Your task to perform on an android device: Add macbook pro 15 inch to the cart on target Image 0: 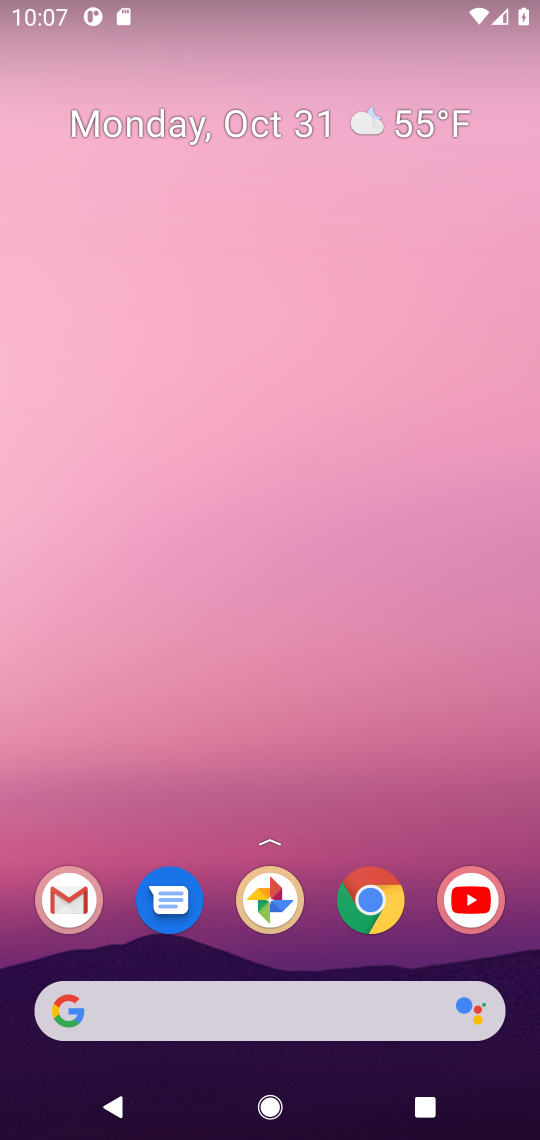
Step 0: click (382, 913)
Your task to perform on an android device: Add macbook pro 15 inch to the cart on target Image 1: 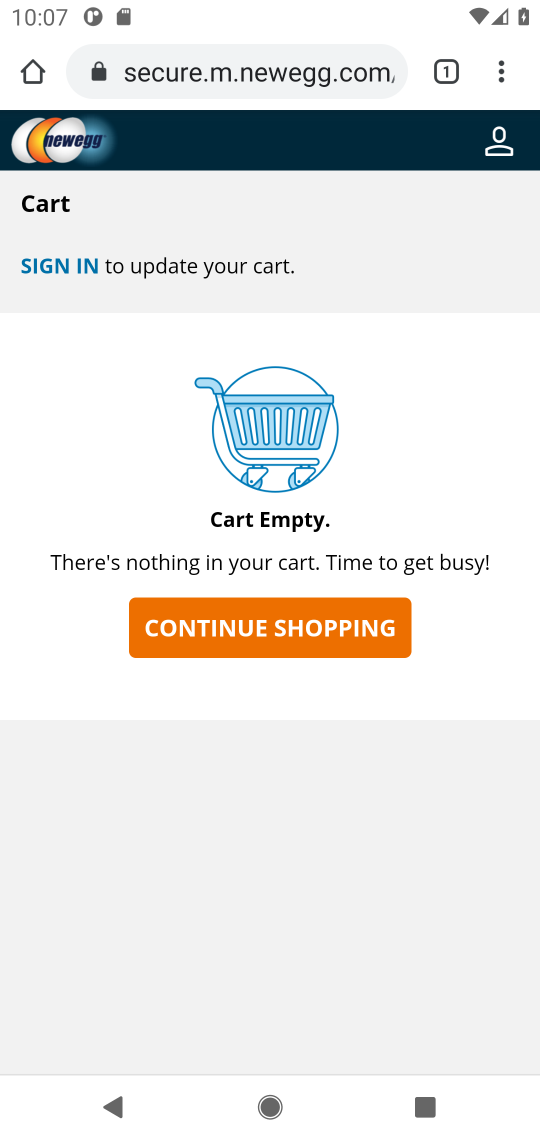
Step 1: click (218, 84)
Your task to perform on an android device: Add macbook pro 15 inch to the cart on target Image 2: 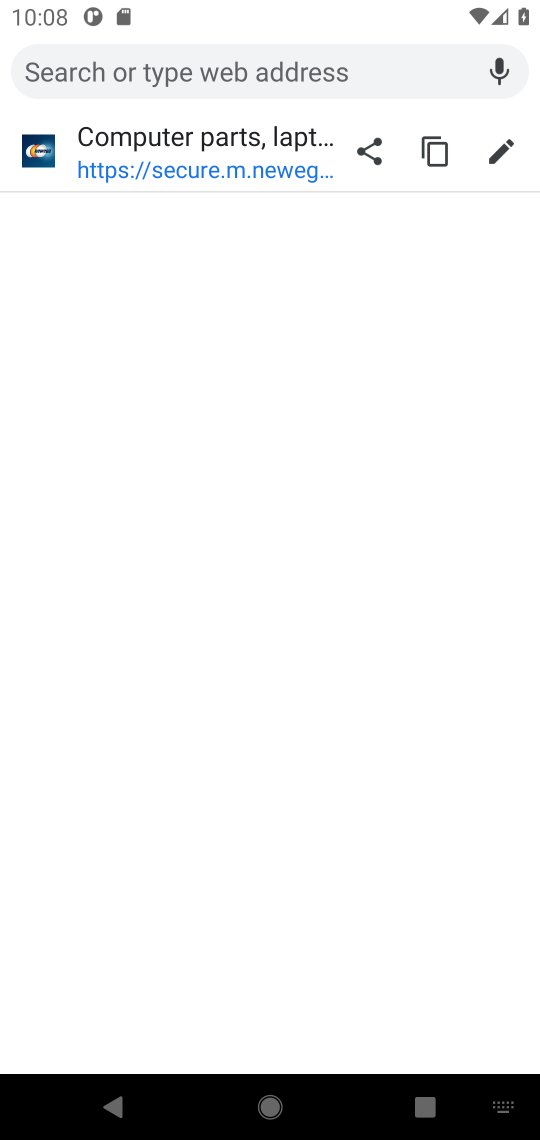
Step 2: type "target"
Your task to perform on an android device: Add macbook pro 15 inch to the cart on target Image 3: 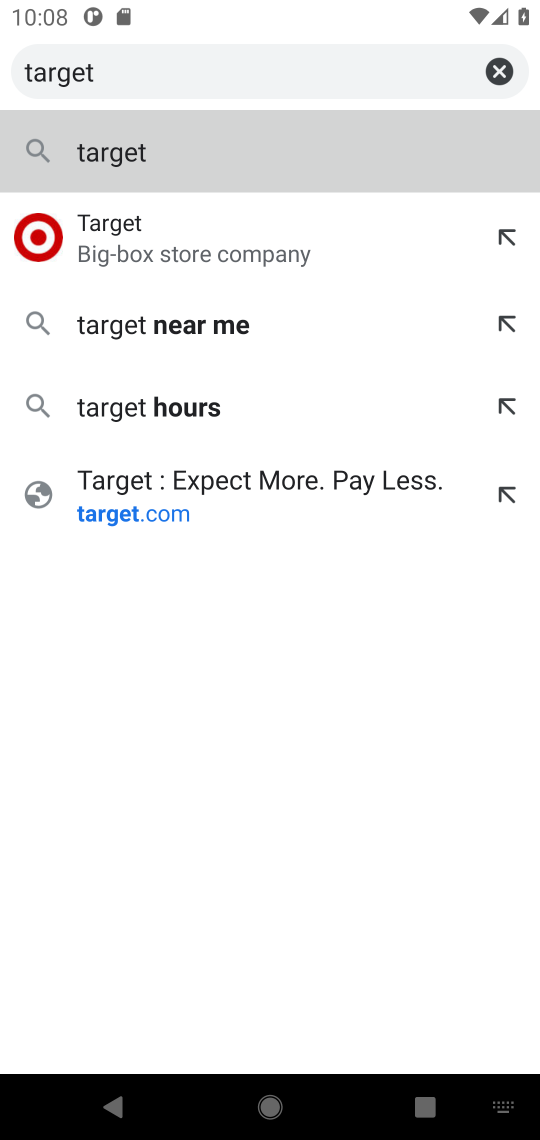
Step 3: type ".com"
Your task to perform on an android device: Add macbook pro 15 inch to the cart on target Image 4: 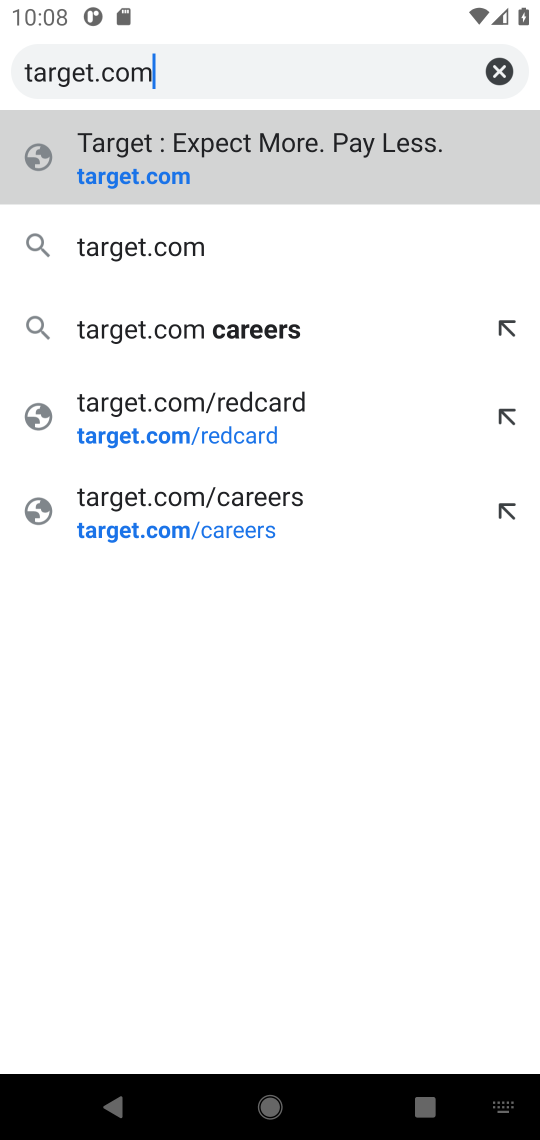
Step 4: click (163, 174)
Your task to perform on an android device: Add macbook pro 15 inch to the cart on target Image 5: 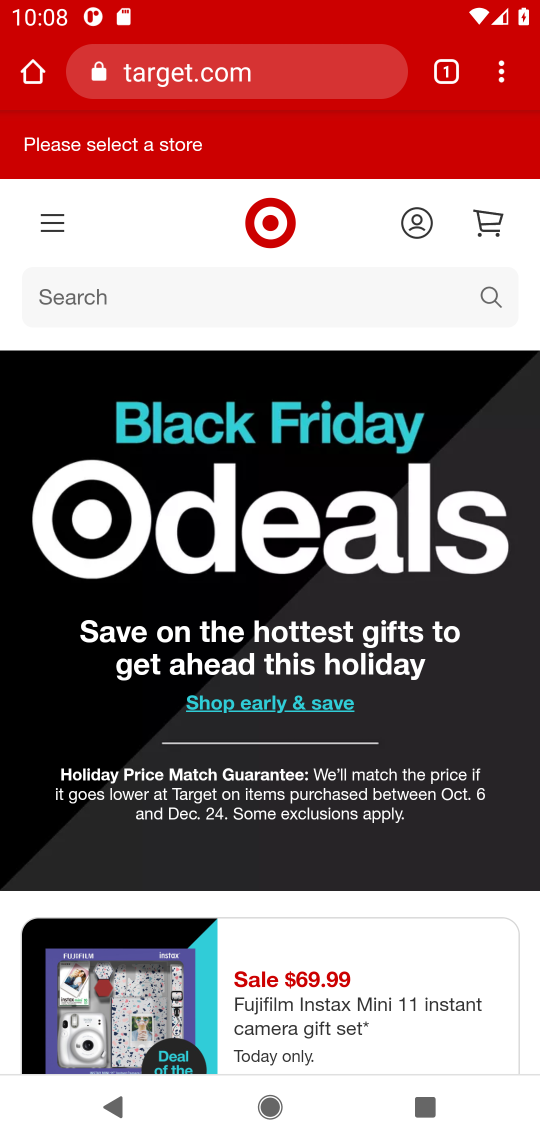
Step 5: click (482, 304)
Your task to perform on an android device: Add macbook pro 15 inch to the cart on target Image 6: 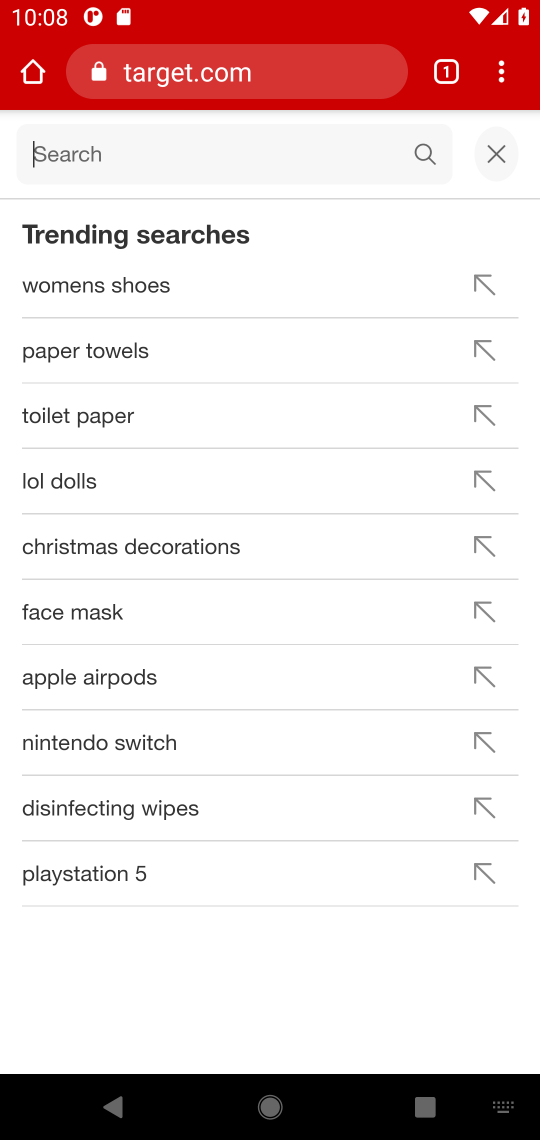
Step 6: type "macbook pro 15 inch"
Your task to perform on an android device: Add macbook pro 15 inch to the cart on target Image 7: 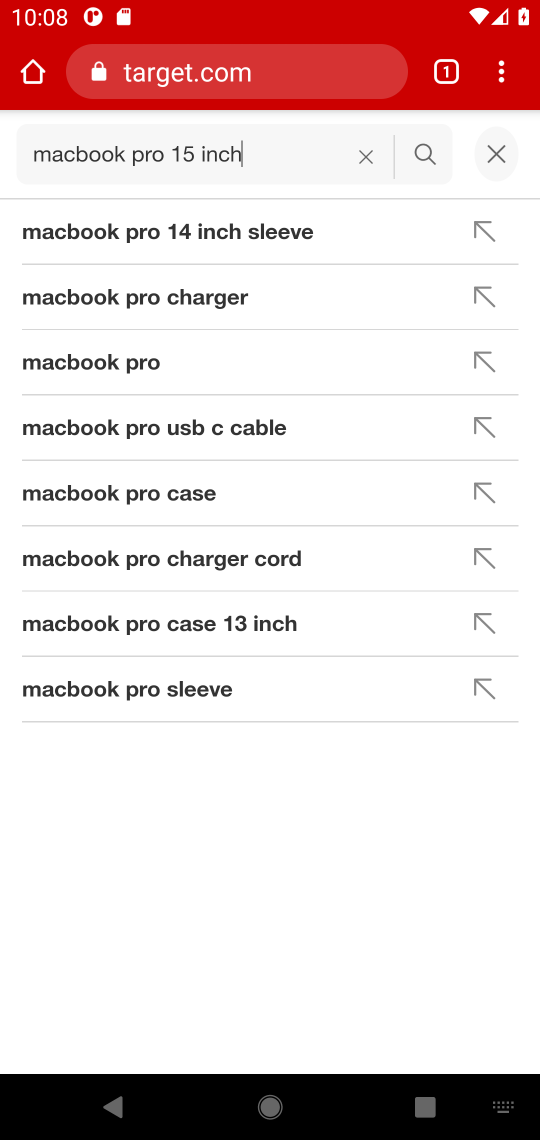
Step 7: click (242, 158)
Your task to perform on an android device: Add macbook pro 15 inch to the cart on target Image 8: 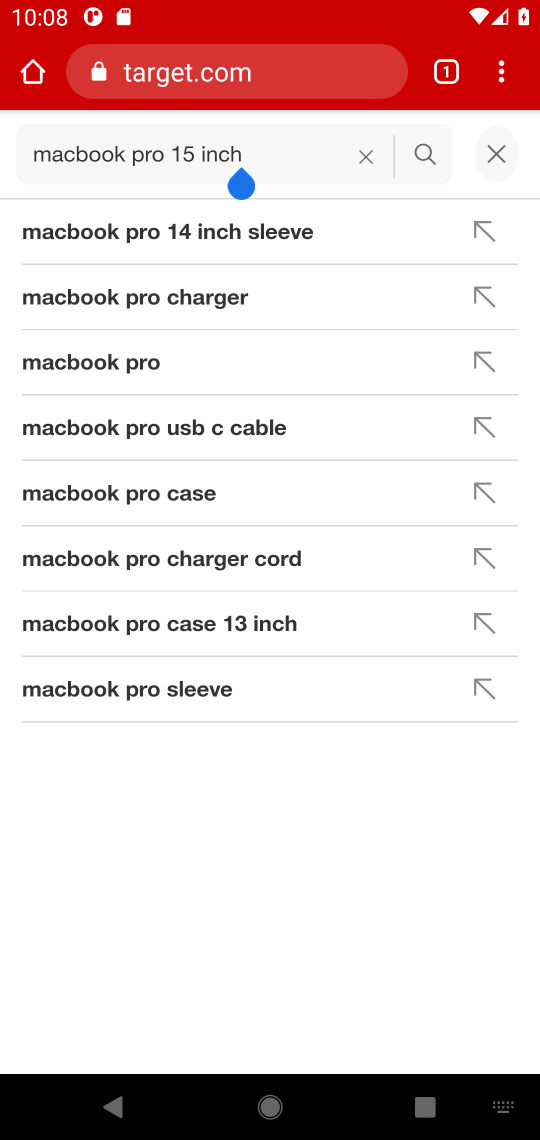
Step 8: click (218, 166)
Your task to perform on an android device: Add macbook pro 15 inch to the cart on target Image 9: 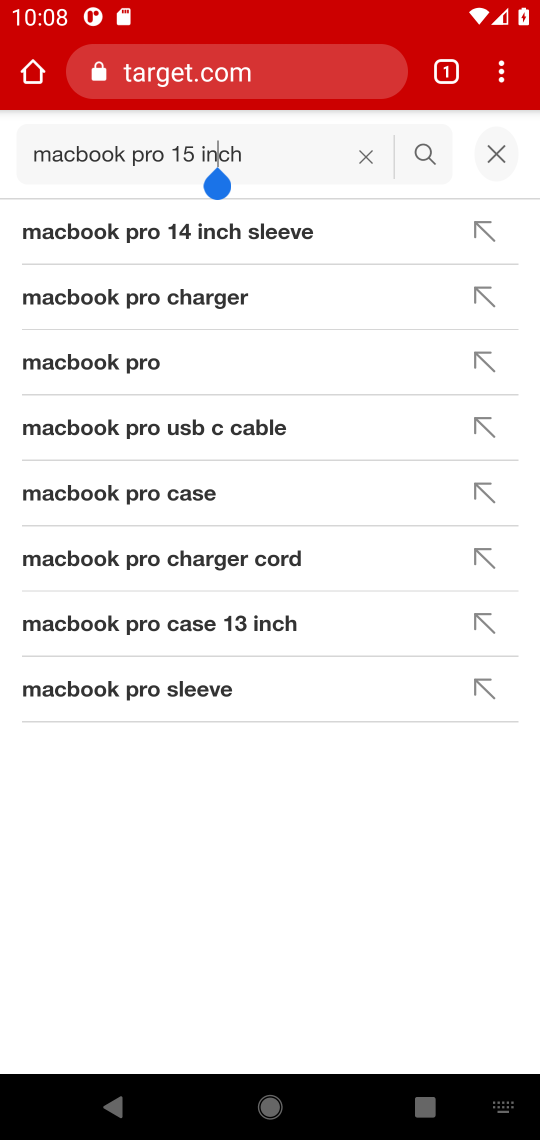
Step 9: click (433, 148)
Your task to perform on an android device: Add macbook pro 15 inch to the cart on target Image 10: 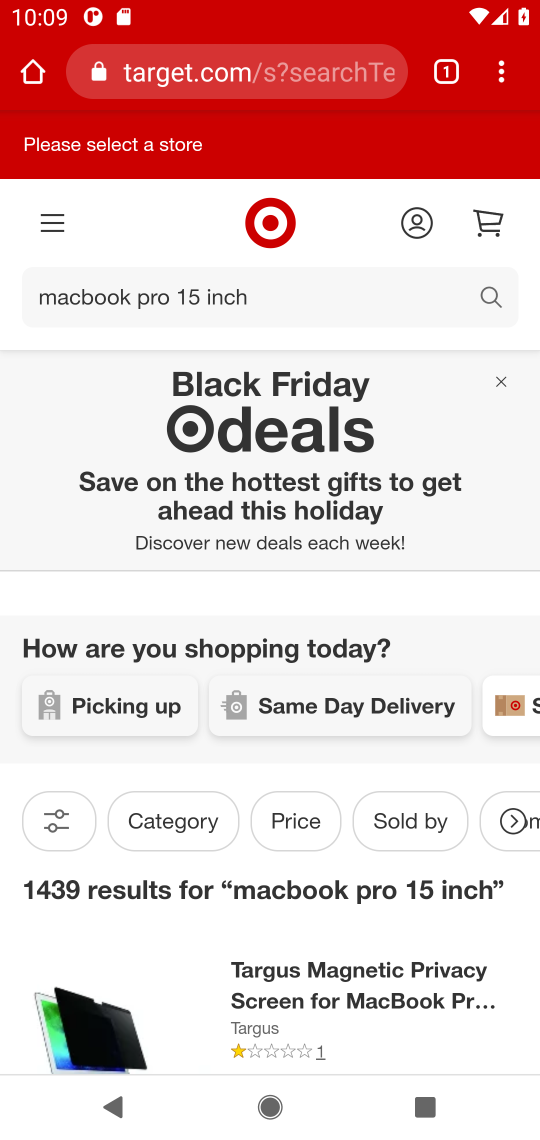
Step 10: drag from (250, 869) to (280, 415)
Your task to perform on an android device: Add macbook pro 15 inch to the cart on target Image 11: 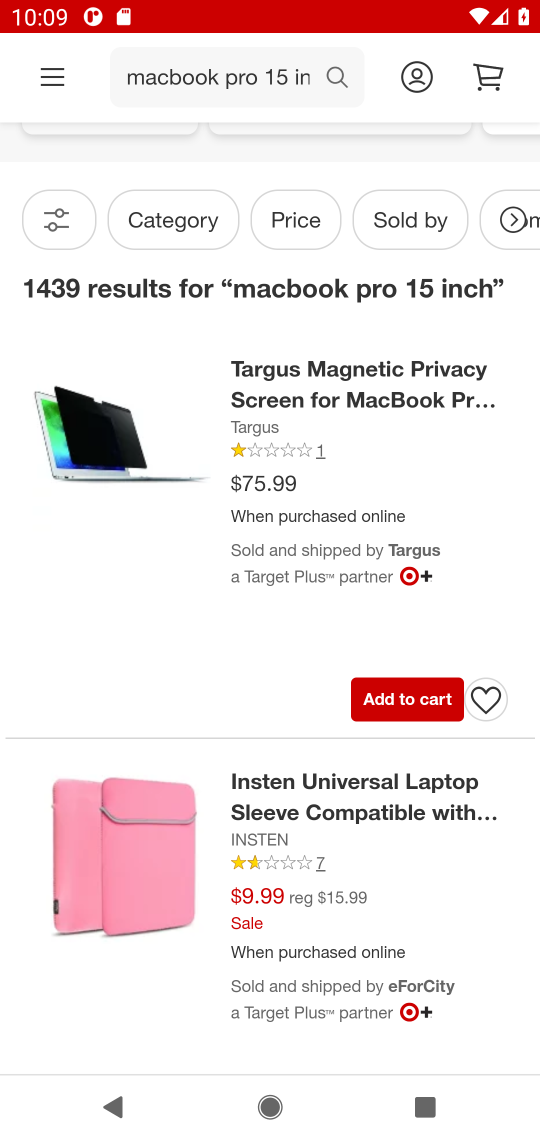
Step 11: click (248, 402)
Your task to perform on an android device: Add macbook pro 15 inch to the cart on target Image 12: 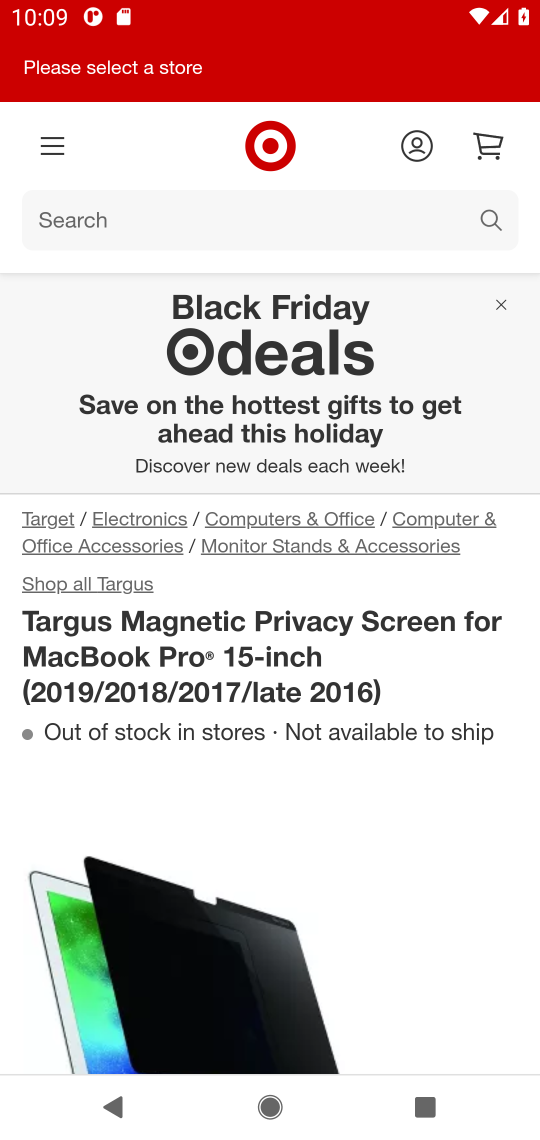
Step 12: drag from (290, 806) to (318, 450)
Your task to perform on an android device: Add macbook pro 15 inch to the cart on target Image 13: 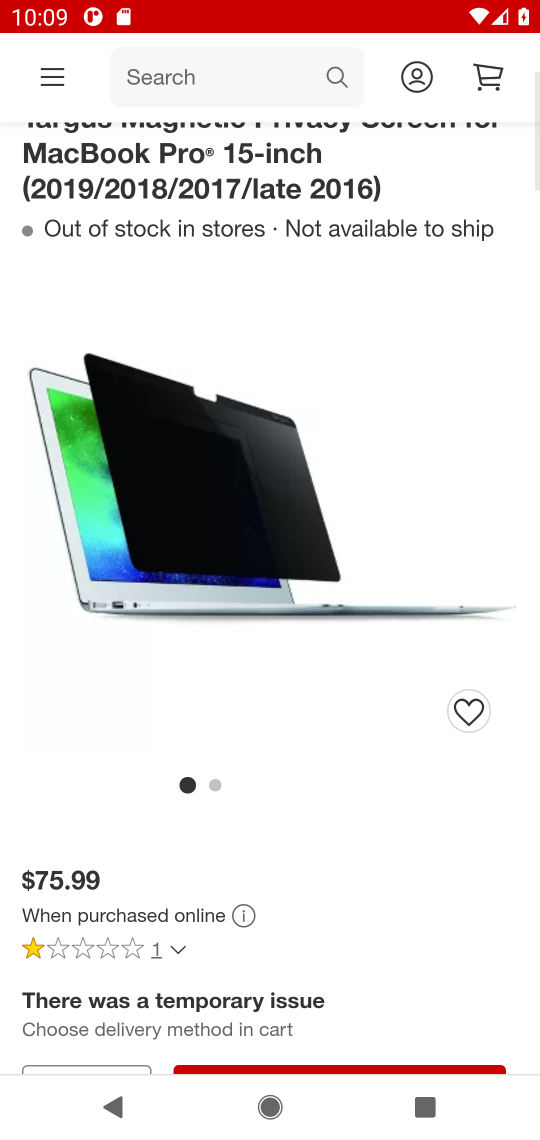
Step 13: drag from (282, 786) to (282, 481)
Your task to perform on an android device: Add macbook pro 15 inch to the cart on target Image 14: 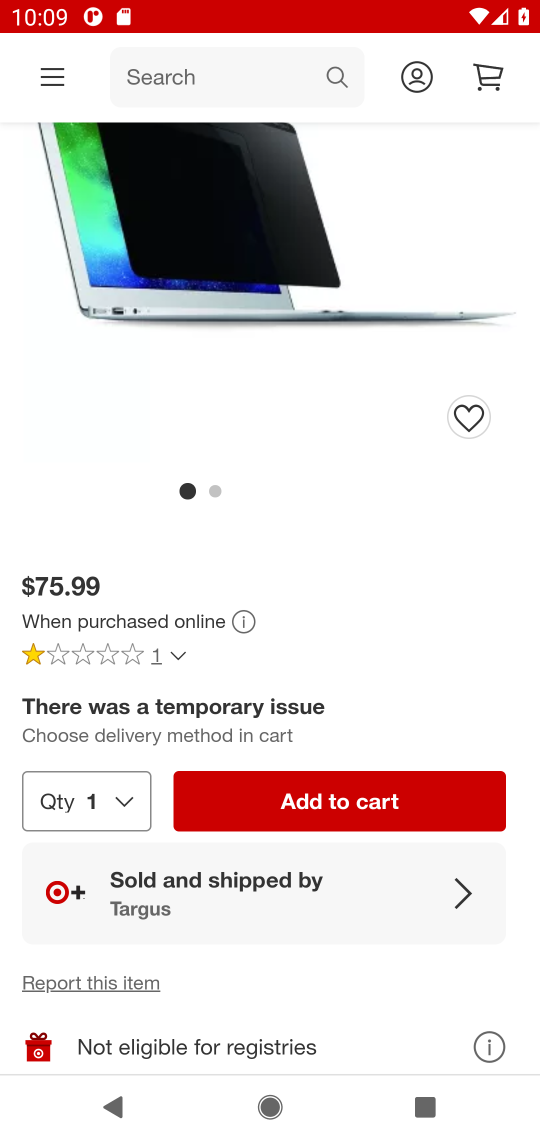
Step 14: drag from (254, 820) to (266, 408)
Your task to perform on an android device: Add macbook pro 15 inch to the cart on target Image 15: 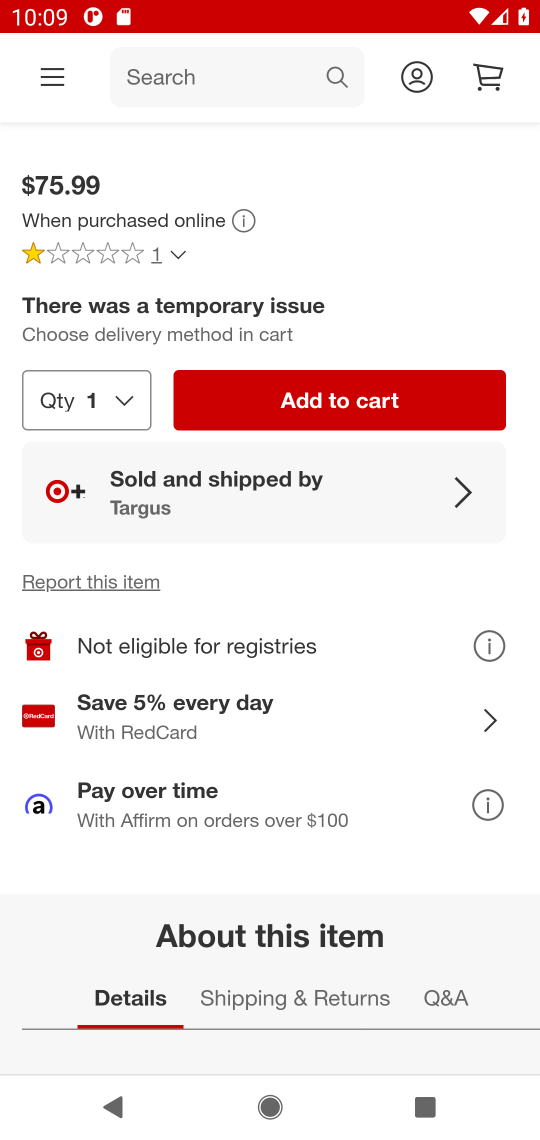
Step 15: click (301, 406)
Your task to perform on an android device: Add macbook pro 15 inch to the cart on target Image 16: 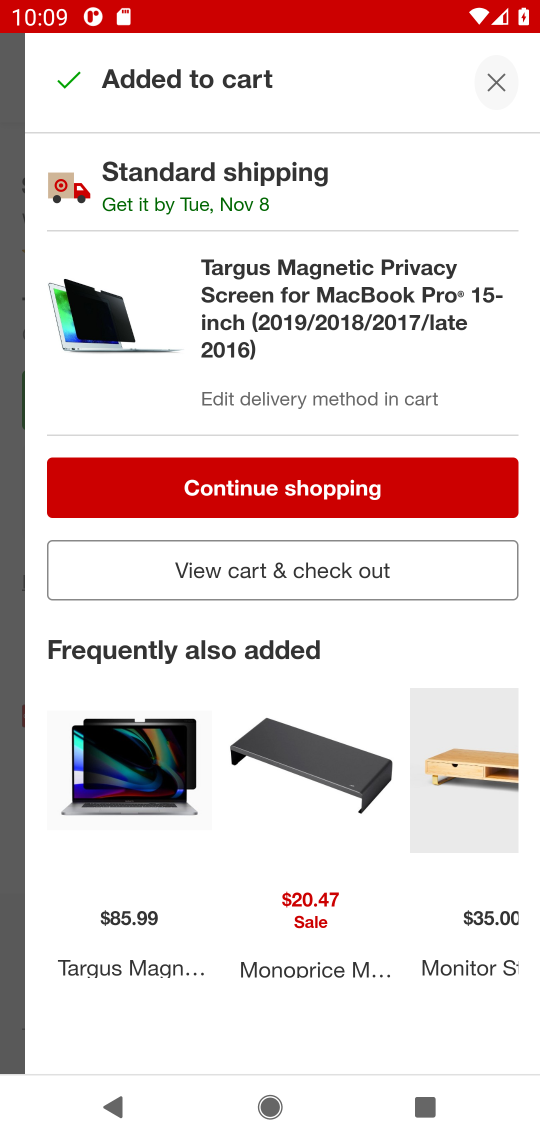
Step 16: task complete